Your task to perform on an android device: delete a single message in the gmail app Image 0: 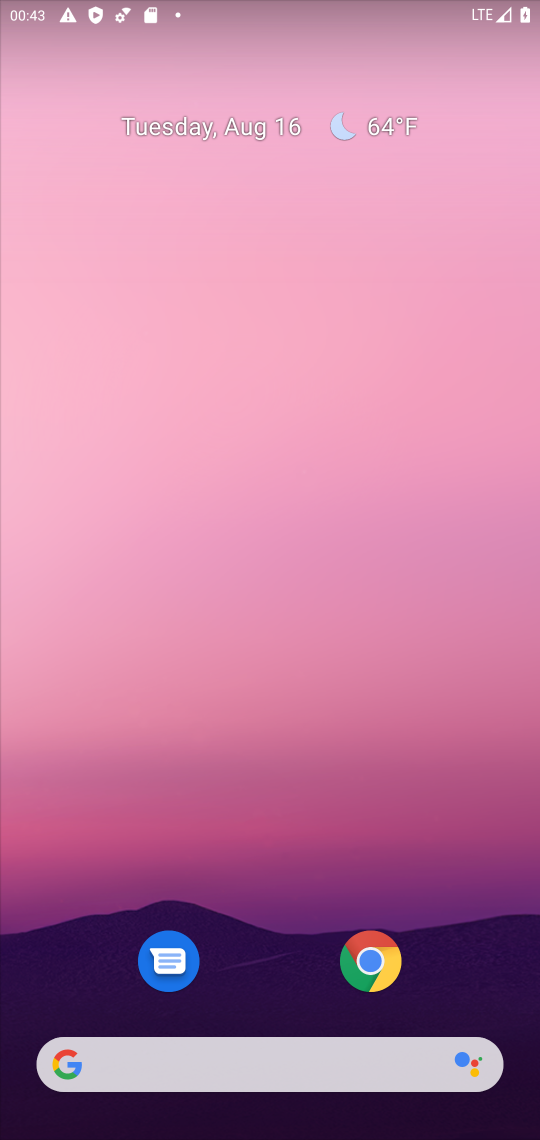
Step 0: press home button
Your task to perform on an android device: delete a single message in the gmail app Image 1: 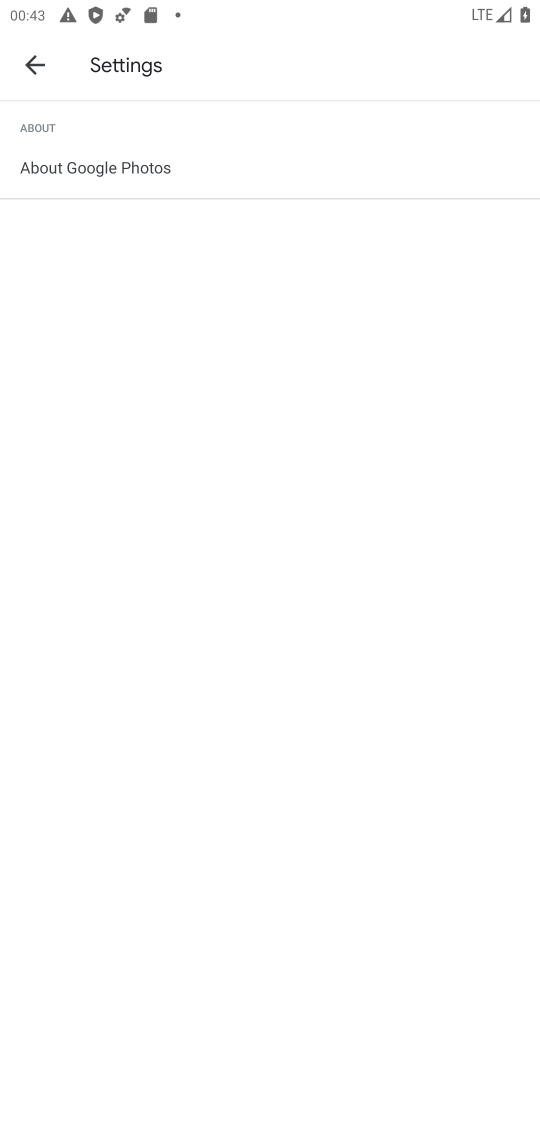
Step 1: press home button
Your task to perform on an android device: delete a single message in the gmail app Image 2: 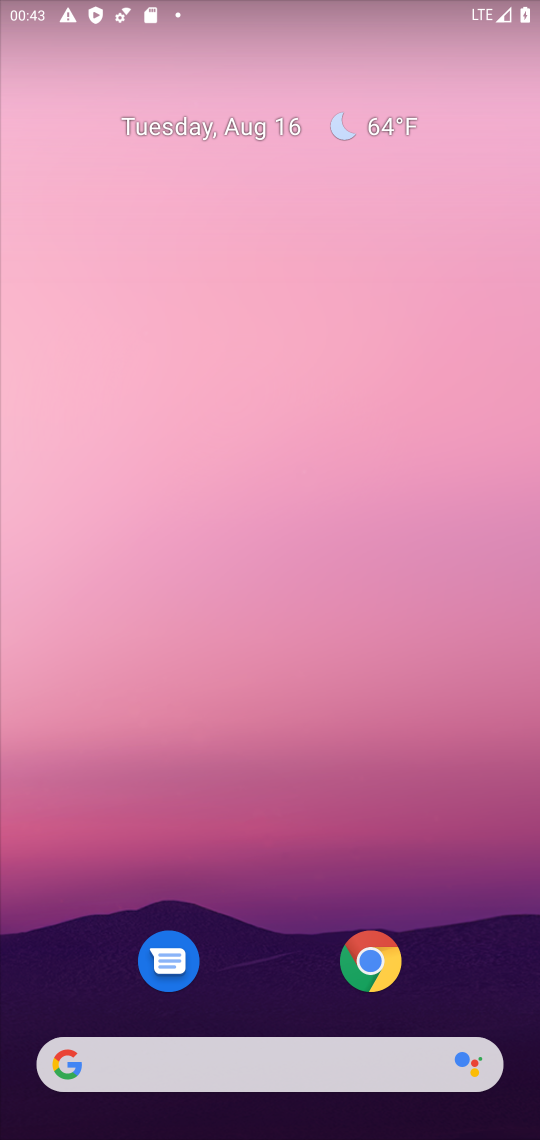
Step 2: press home button
Your task to perform on an android device: delete a single message in the gmail app Image 3: 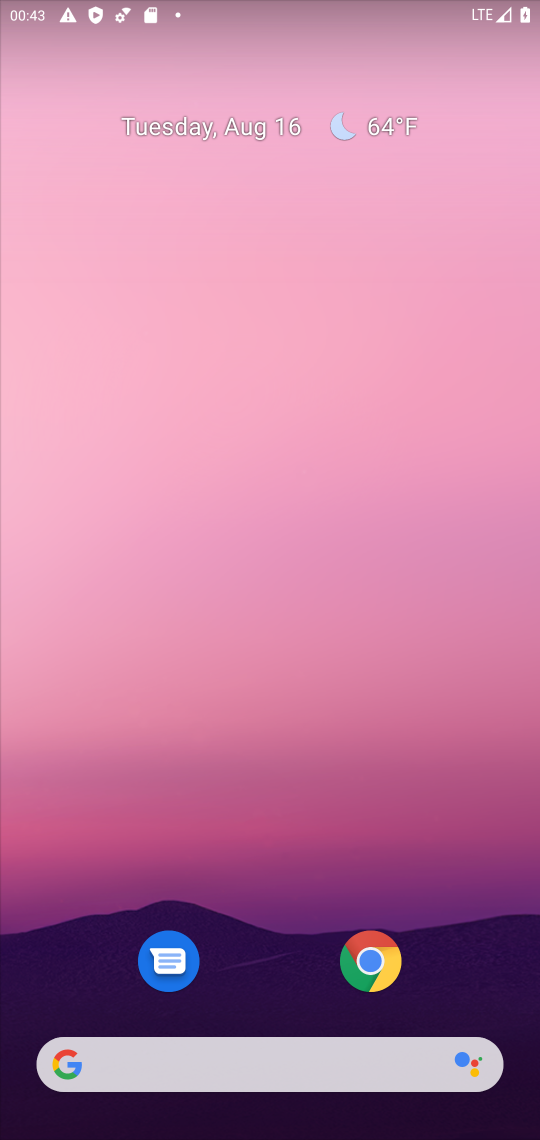
Step 3: drag from (393, 841) to (425, 0)
Your task to perform on an android device: delete a single message in the gmail app Image 4: 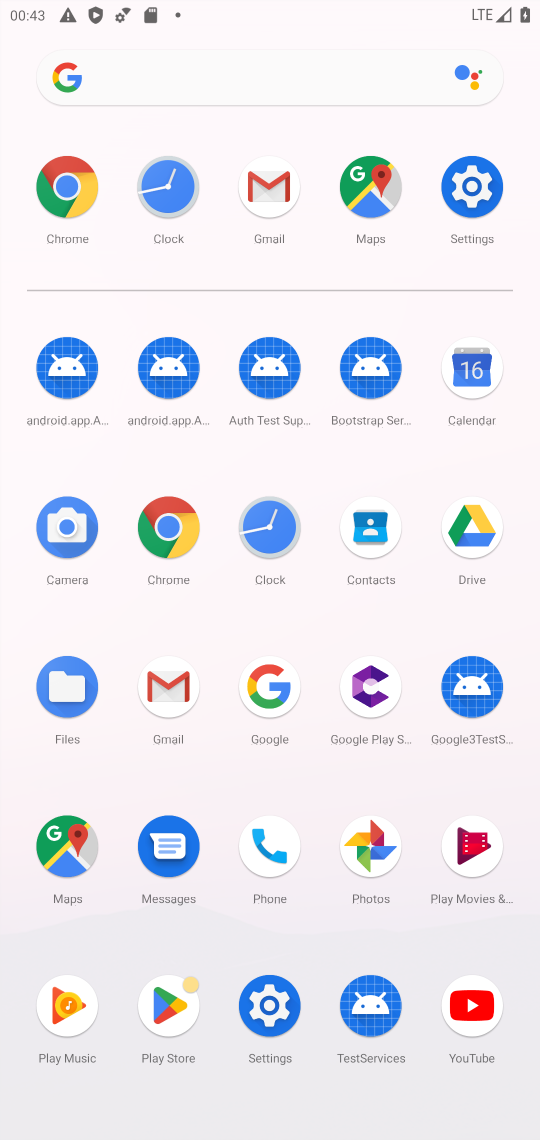
Step 4: click (281, 228)
Your task to perform on an android device: delete a single message in the gmail app Image 5: 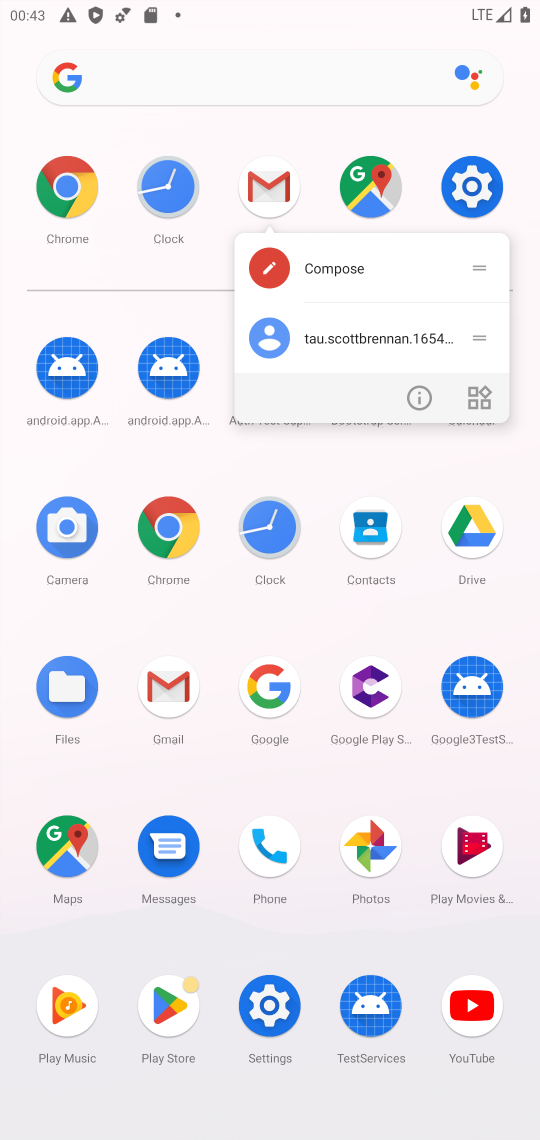
Step 5: click (414, 403)
Your task to perform on an android device: delete a single message in the gmail app Image 6: 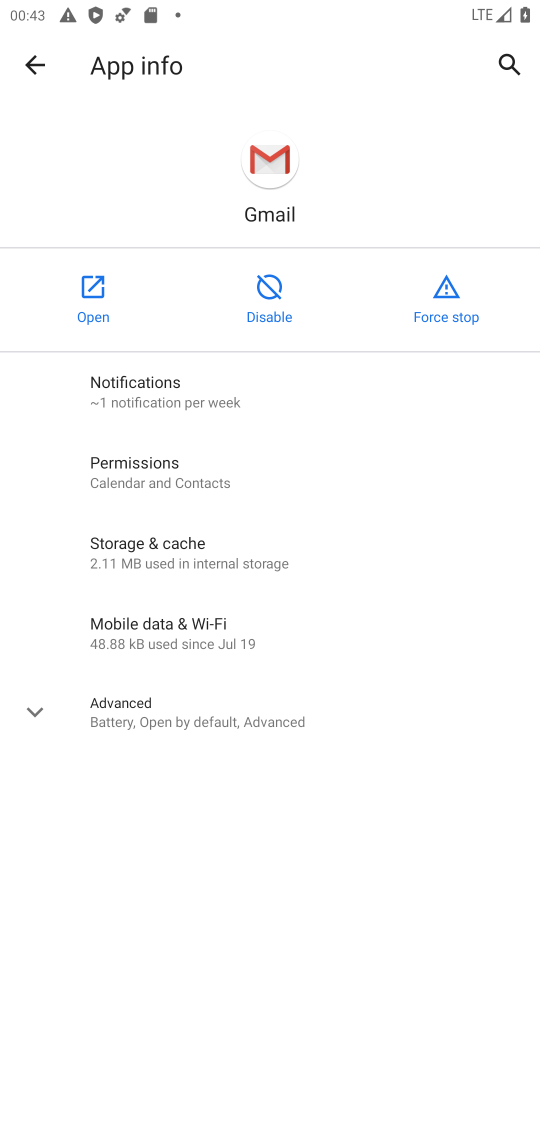
Step 6: press home button
Your task to perform on an android device: delete a single message in the gmail app Image 7: 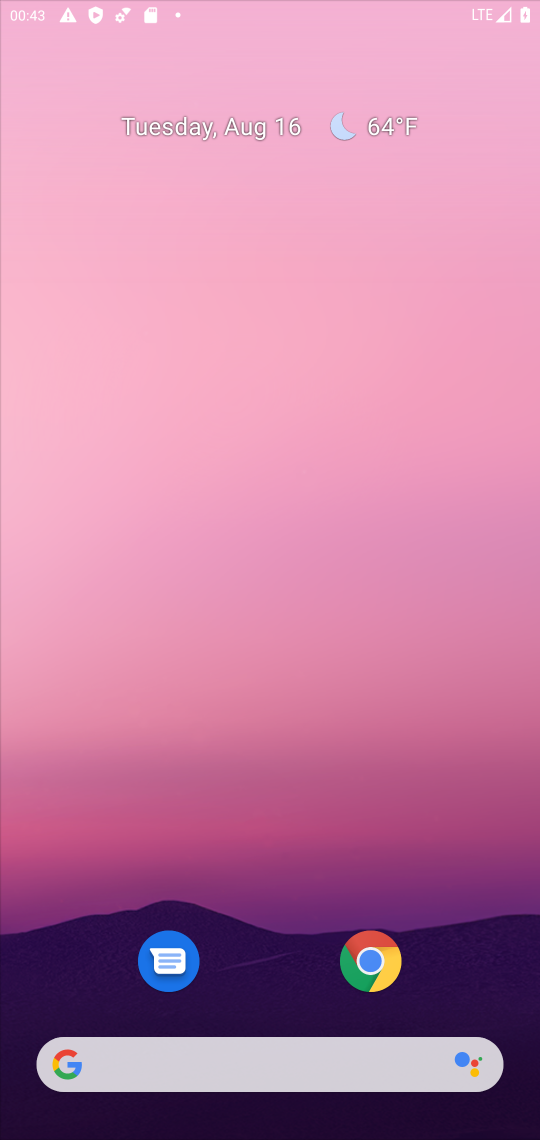
Step 7: drag from (309, 570) to (309, 33)
Your task to perform on an android device: delete a single message in the gmail app Image 8: 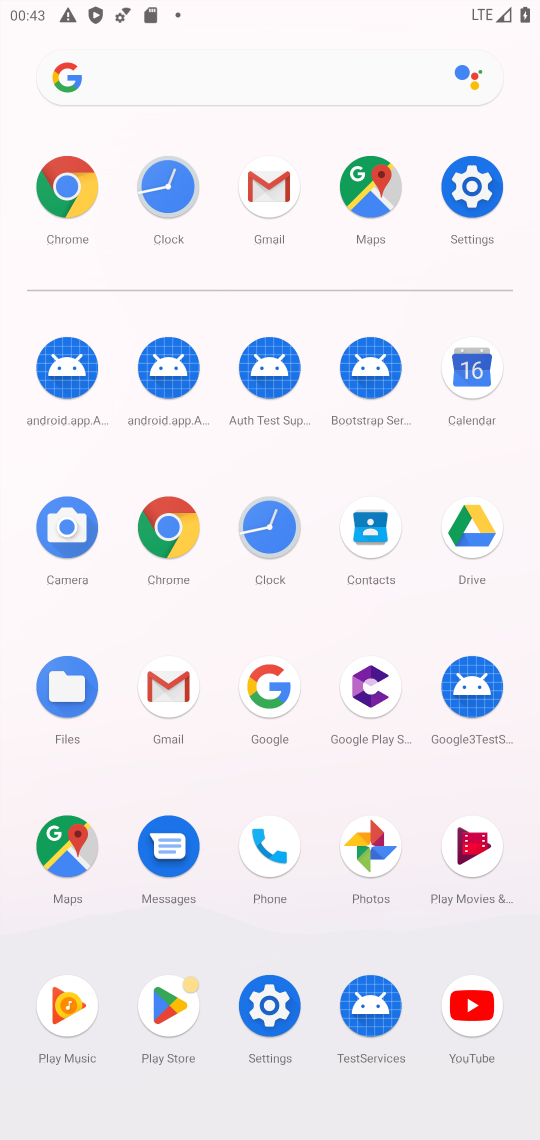
Step 8: click (291, 180)
Your task to perform on an android device: delete a single message in the gmail app Image 9: 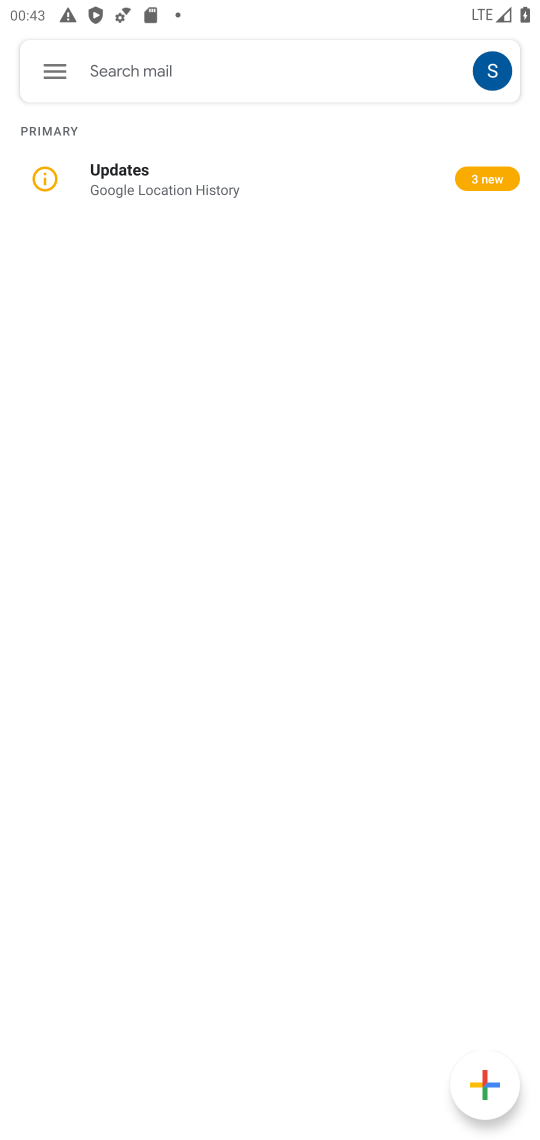
Step 9: task complete